Your task to perform on an android device: toggle location history Image 0: 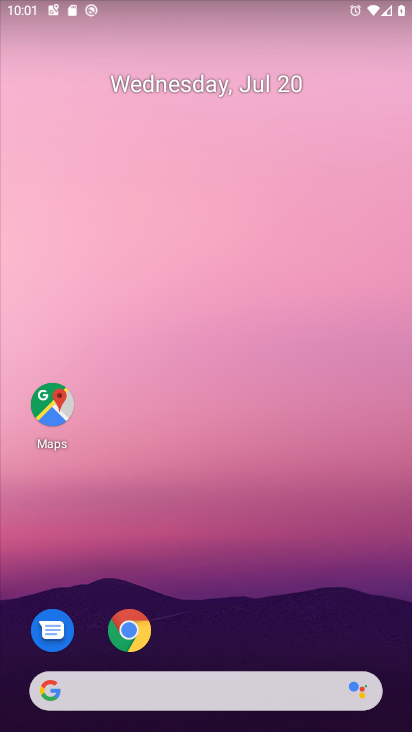
Step 0: drag from (203, 700) to (241, 99)
Your task to perform on an android device: toggle location history Image 1: 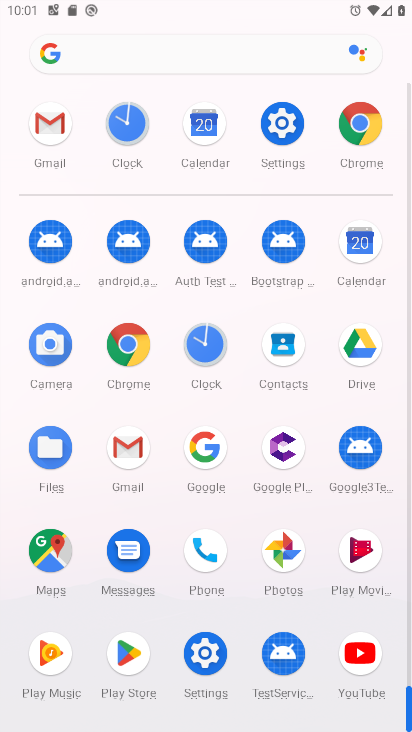
Step 1: click (285, 125)
Your task to perform on an android device: toggle location history Image 2: 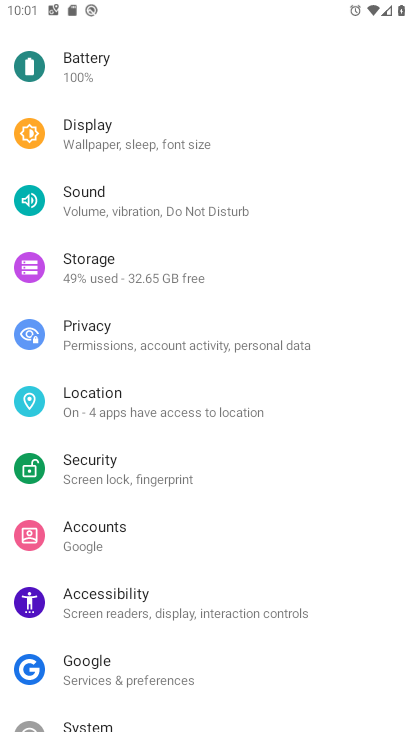
Step 2: click (115, 396)
Your task to perform on an android device: toggle location history Image 3: 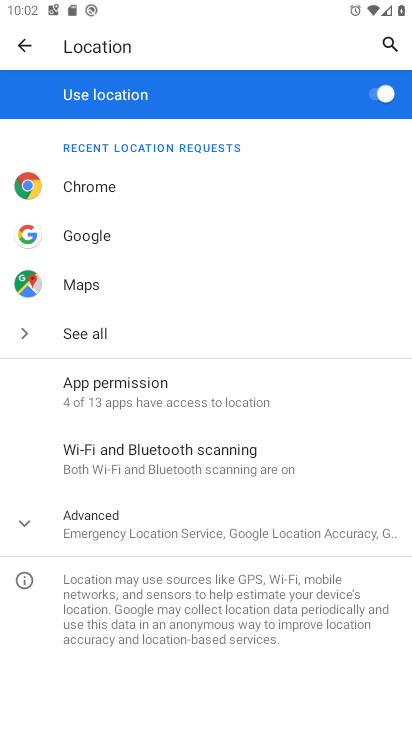
Step 3: click (146, 525)
Your task to perform on an android device: toggle location history Image 4: 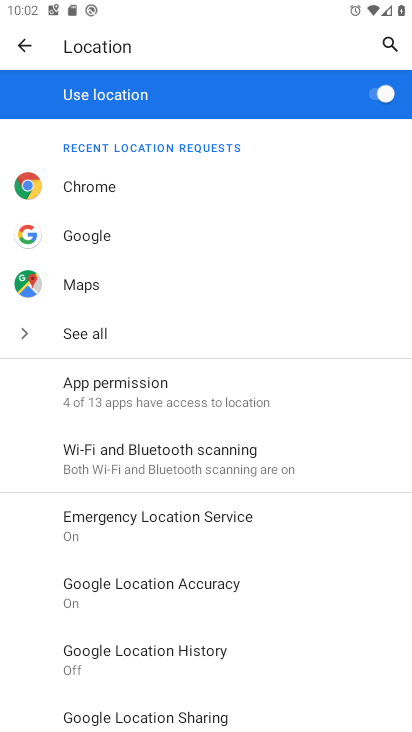
Step 4: click (177, 652)
Your task to perform on an android device: toggle location history Image 5: 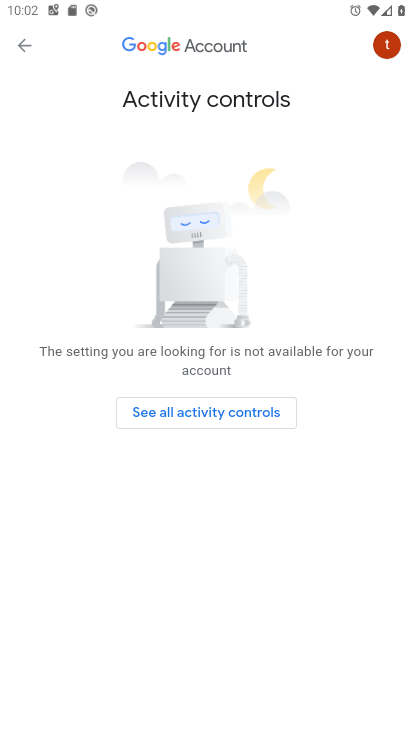
Step 5: task complete